Your task to perform on an android device: Show me recent news Image 0: 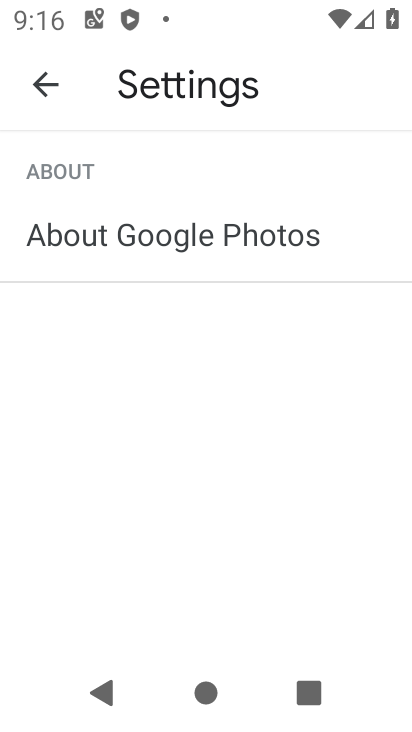
Step 0: press home button
Your task to perform on an android device: Show me recent news Image 1: 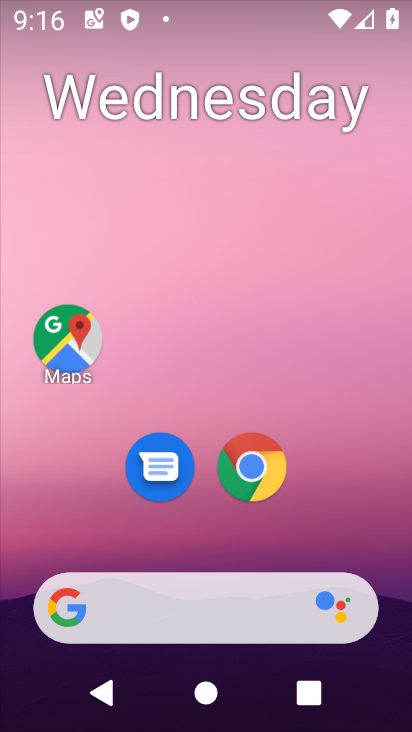
Step 1: drag from (317, 549) to (243, 70)
Your task to perform on an android device: Show me recent news Image 2: 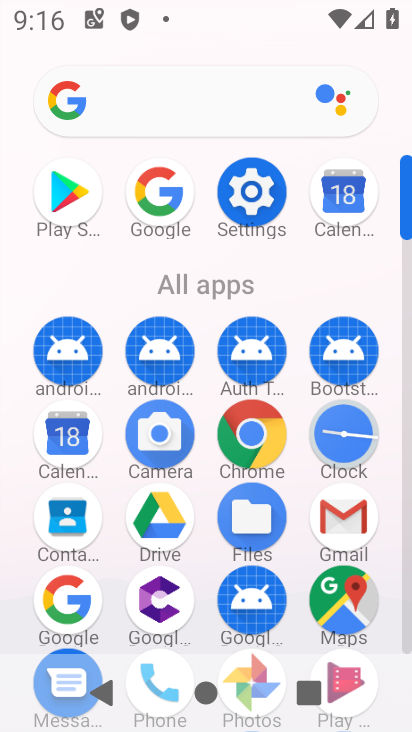
Step 2: click (150, 202)
Your task to perform on an android device: Show me recent news Image 3: 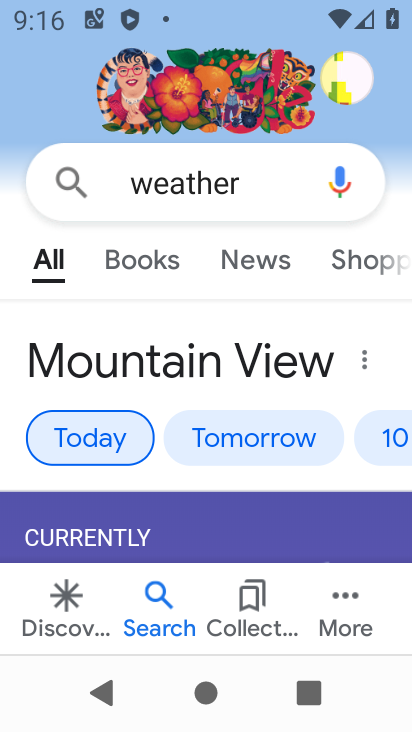
Step 3: click (245, 180)
Your task to perform on an android device: Show me recent news Image 4: 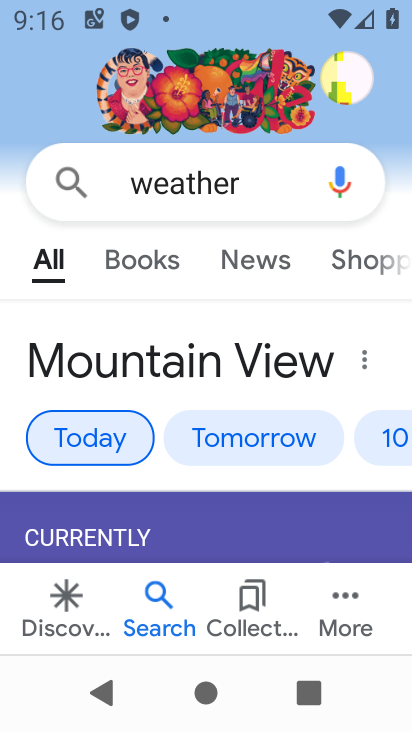
Step 4: click (246, 180)
Your task to perform on an android device: Show me recent news Image 5: 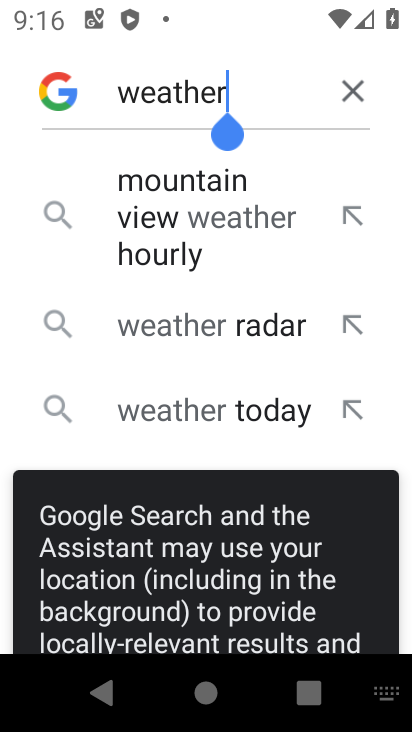
Step 5: click (346, 93)
Your task to perform on an android device: Show me recent news Image 6: 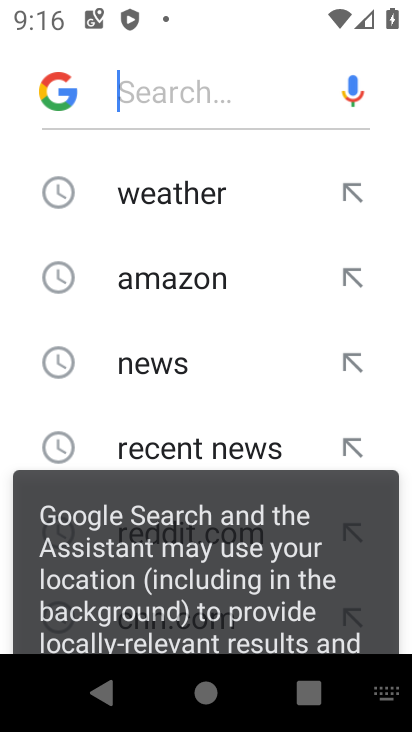
Step 6: click (188, 369)
Your task to perform on an android device: Show me recent news Image 7: 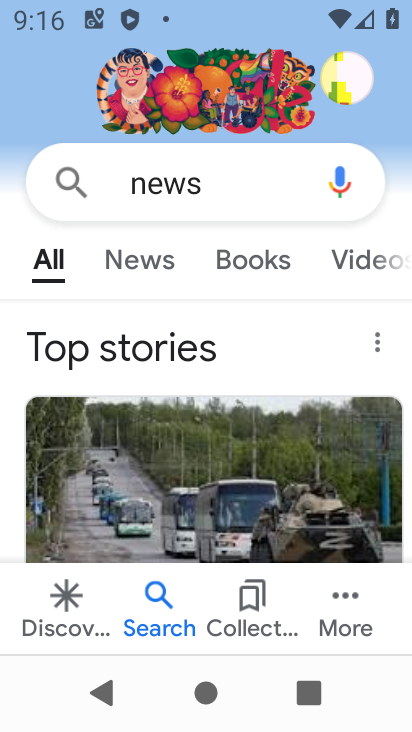
Step 7: click (230, 183)
Your task to perform on an android device: Show me recent news Image 8: 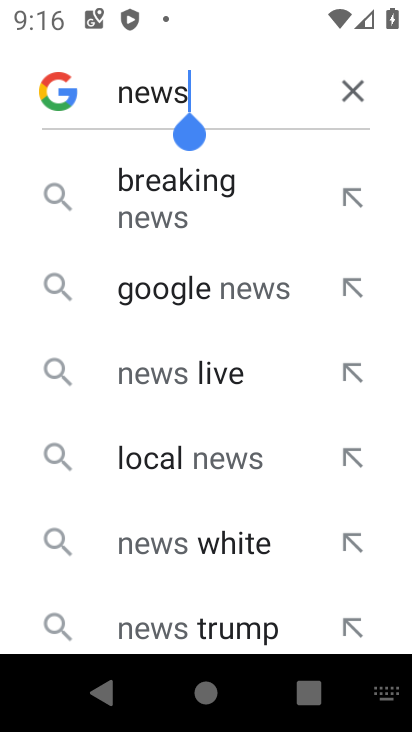
Step 8: click (345, 93)
Your task to perform on an android device: Show me recent news Image 9: 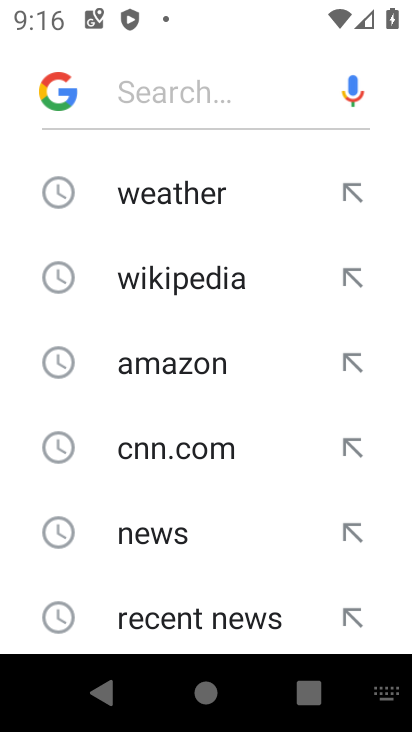
Step 9: click (187, 613)
Your task to perform on an android device: Show me recent news Image 10: 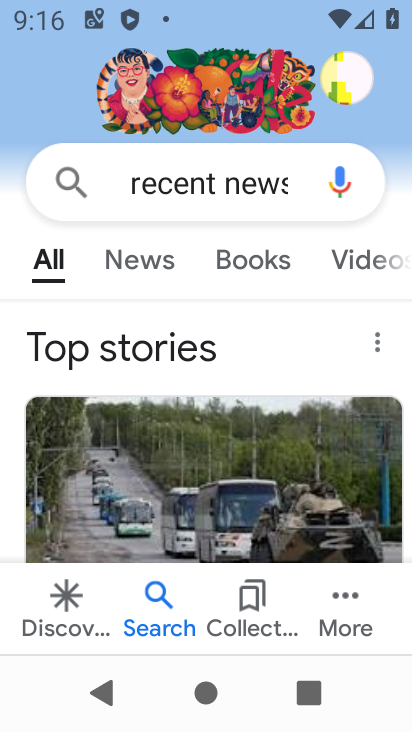
Step 10: task complete